Your task to perform on an android device: open app "PlayWell" (install if not already installed) and go to login screen Image 0: 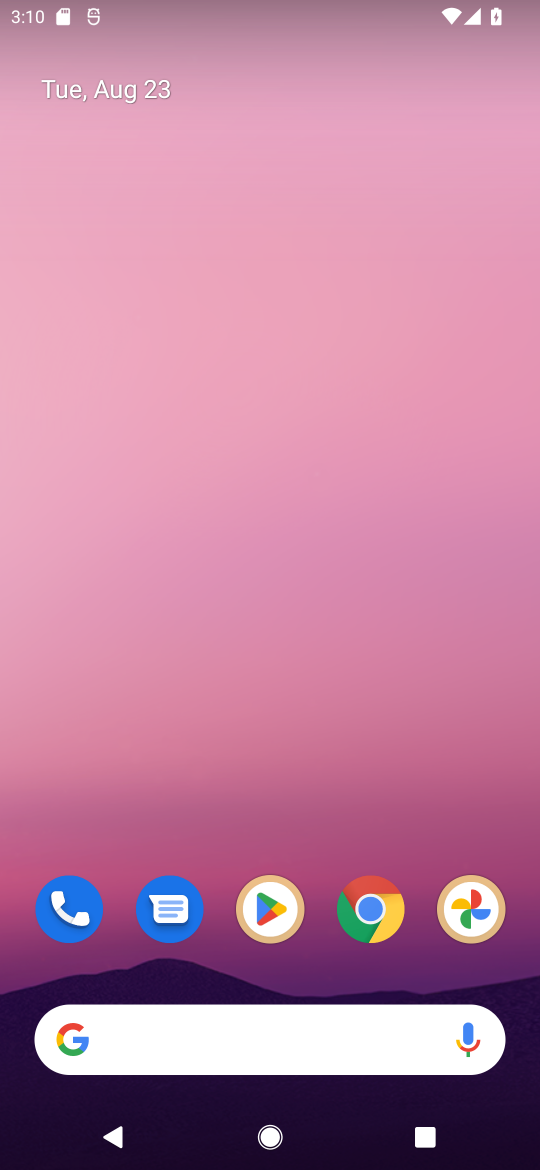
Step 0: press home button
Your task to perform on an android device: open app "PlayWell" (install if not already installed) and go to login screen Image 1: 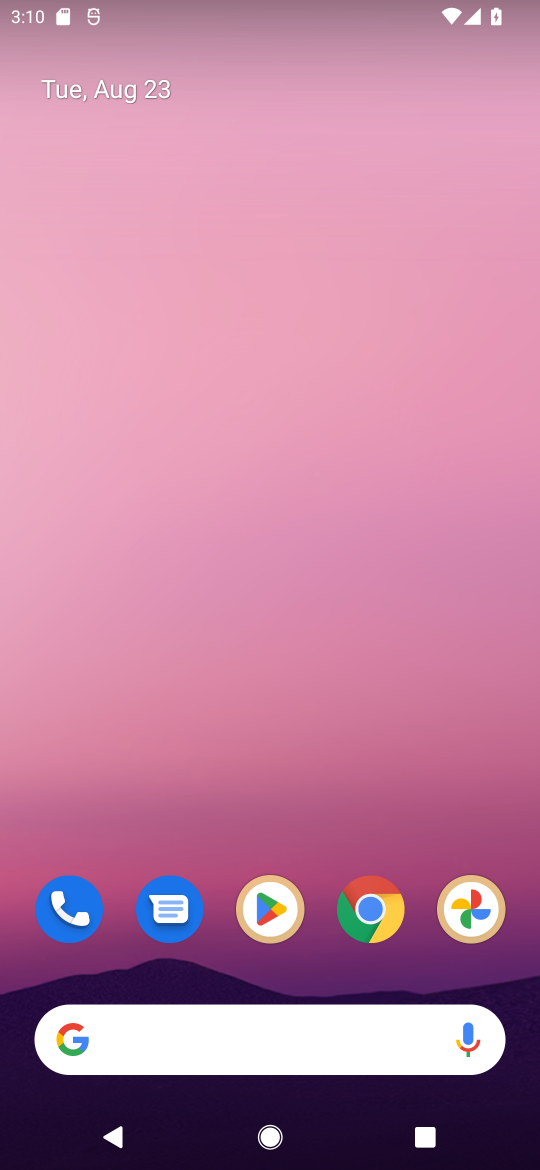
Step 1: click (267, 904)
Your task to perform on an android device: open app "PlayWell" (install if not already installed) and go to login screen Image 2: 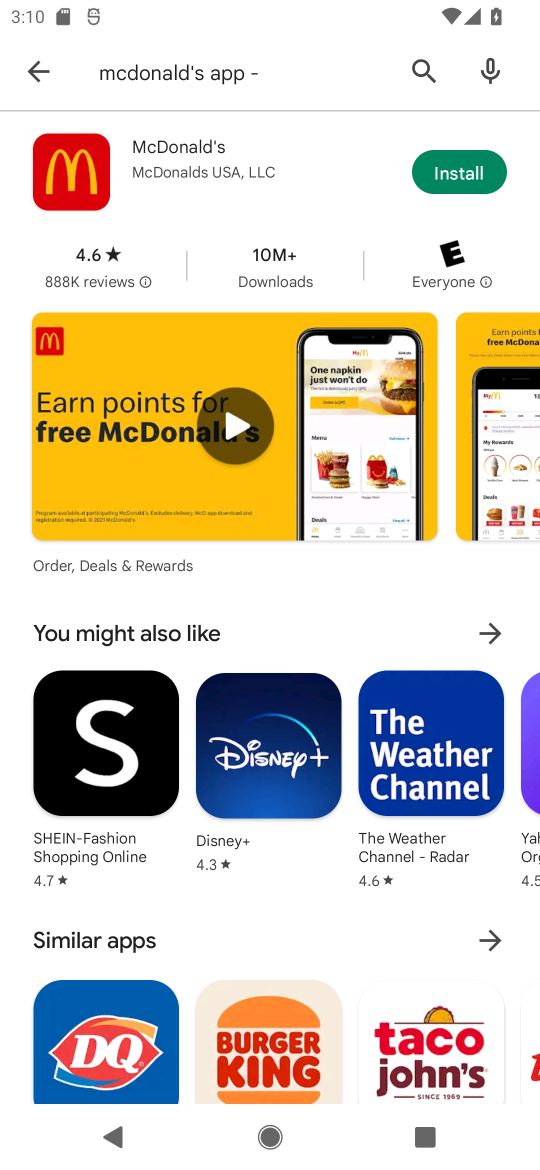
Step 2: click (429, 70)
Your task to perform on an android device: open app "PlayWell" (install if not already installed) and go to login screen Image 3: 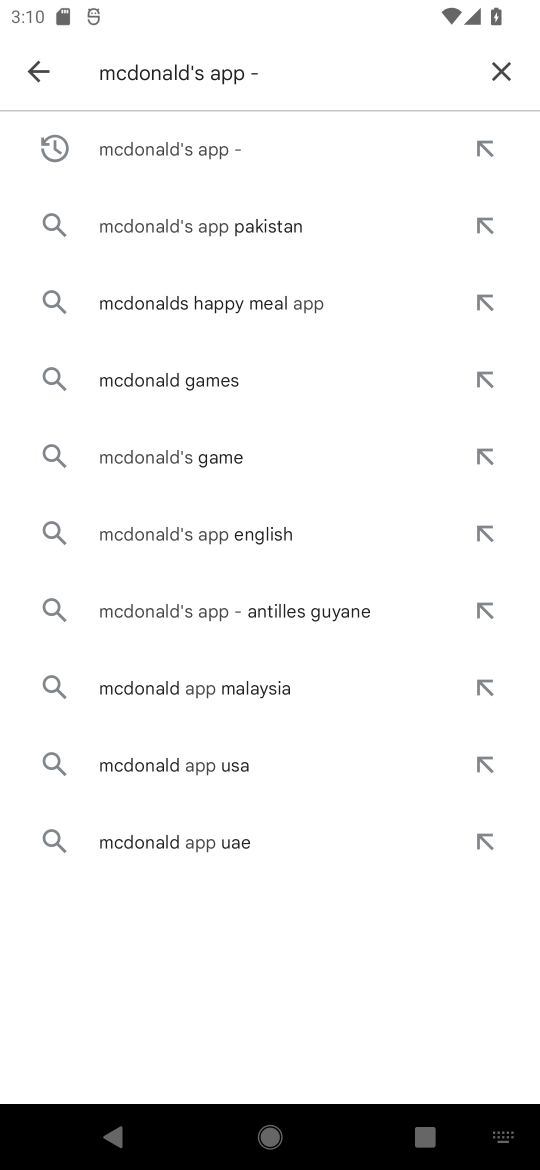
Step 3: click (492, 79)
Your task to perform on an android device: open app "PlayWell" (install if not already installed) and go to login screen Image 4: 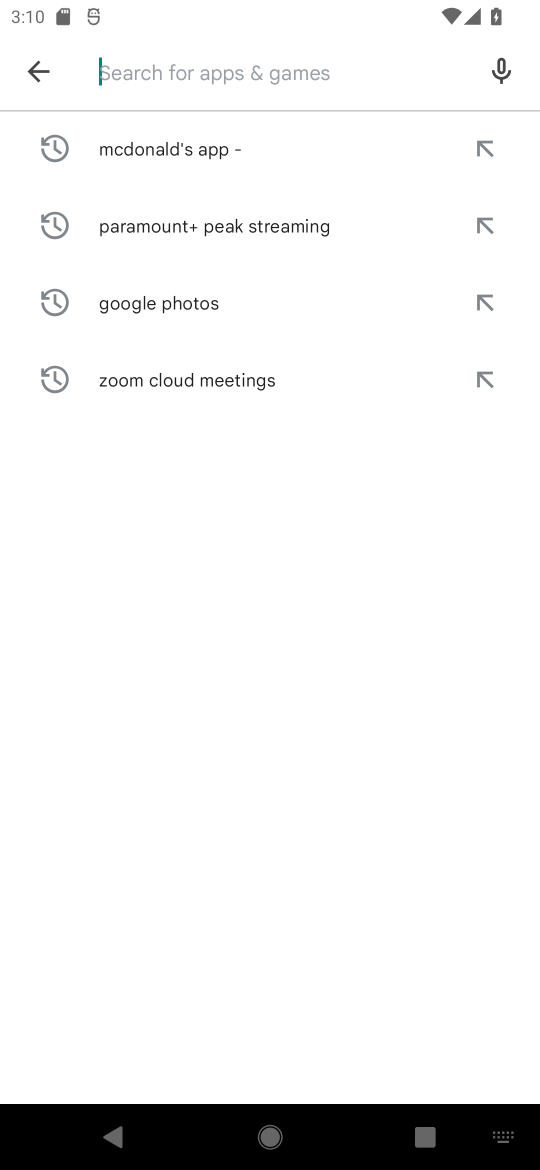
Step 4: type "PlayWell"
Your task to perform on an android device: open app "PlayWell" (install if not already installed) and go to login screen Image 5: 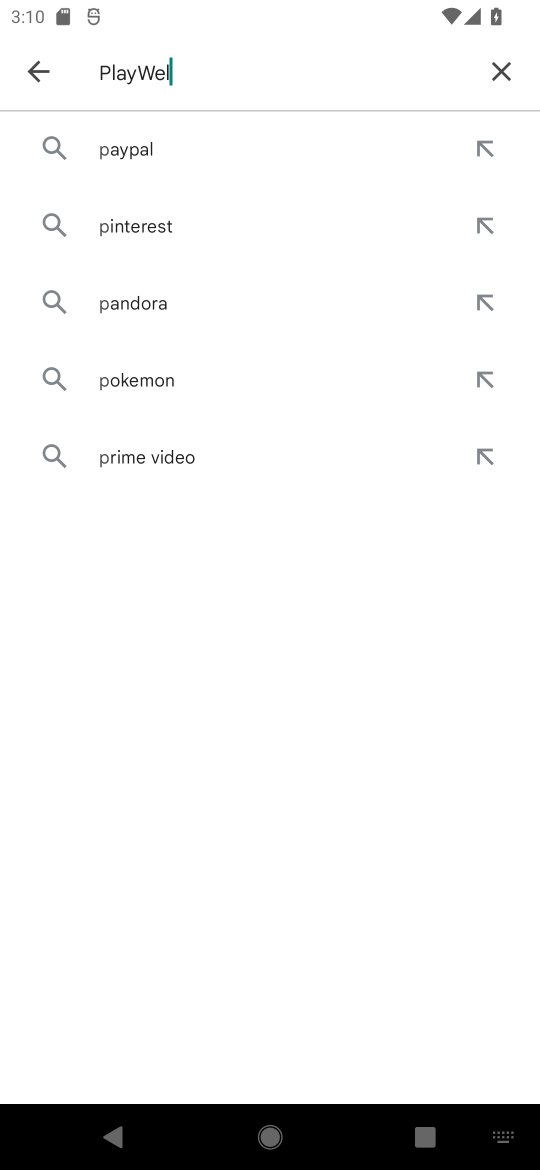
Step 5: type ""
Your task to perform on an android device: open app "PlayWell" (install if not already installed) and go to login screen Image 6: 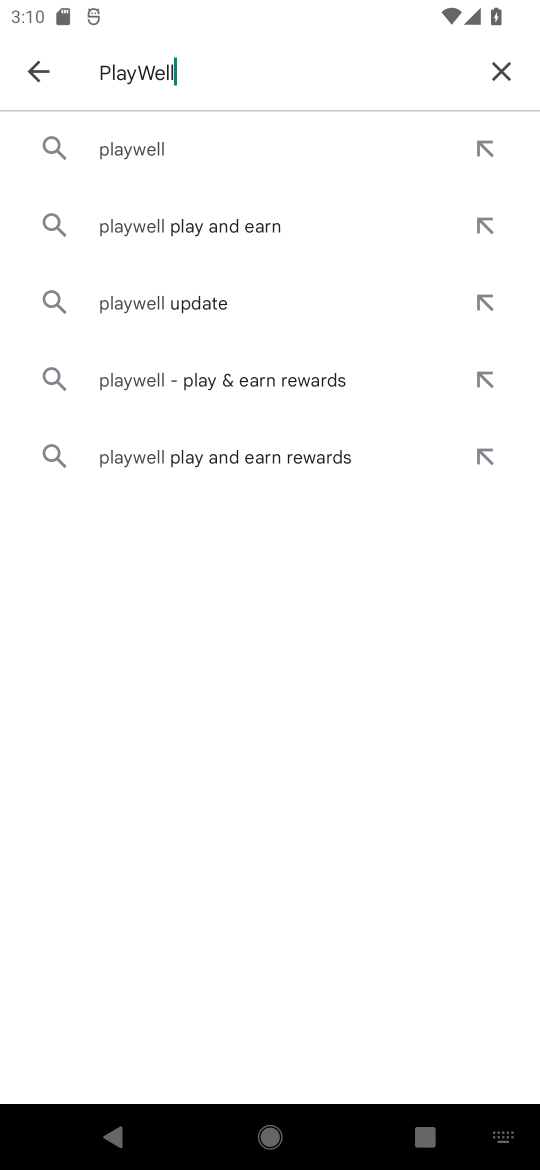
Step 6: click (184, 147)
Your task to perform on an android device: open app "PlayWell" (install if not already installed) and go to login screen Image 7: 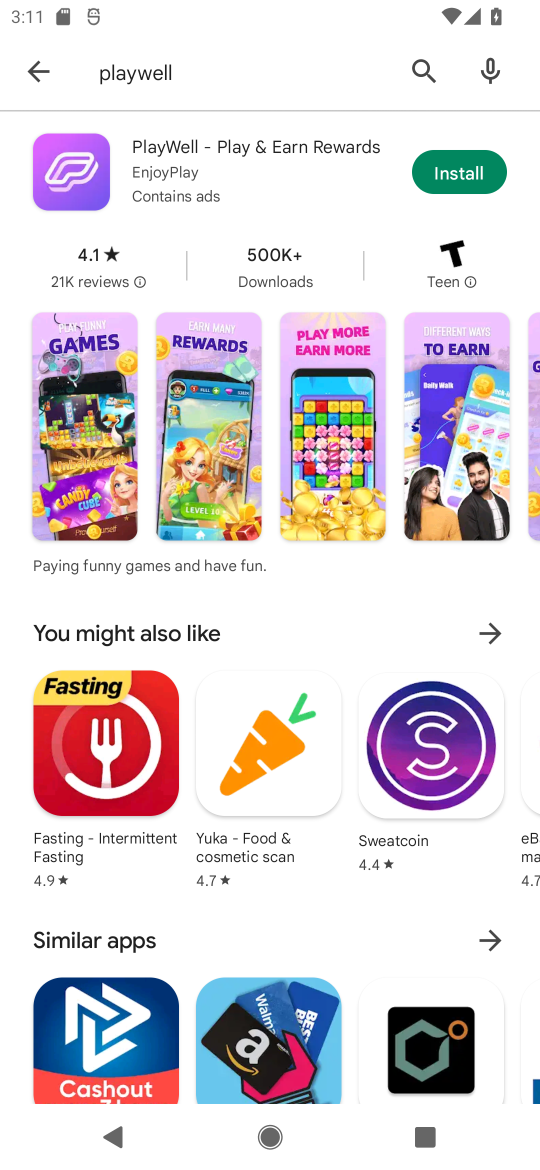
Step 7: click (465, 172)
Your task to perform on an android device: open app "PlayWell" (install if not already installed) and go to login screen Image 8: 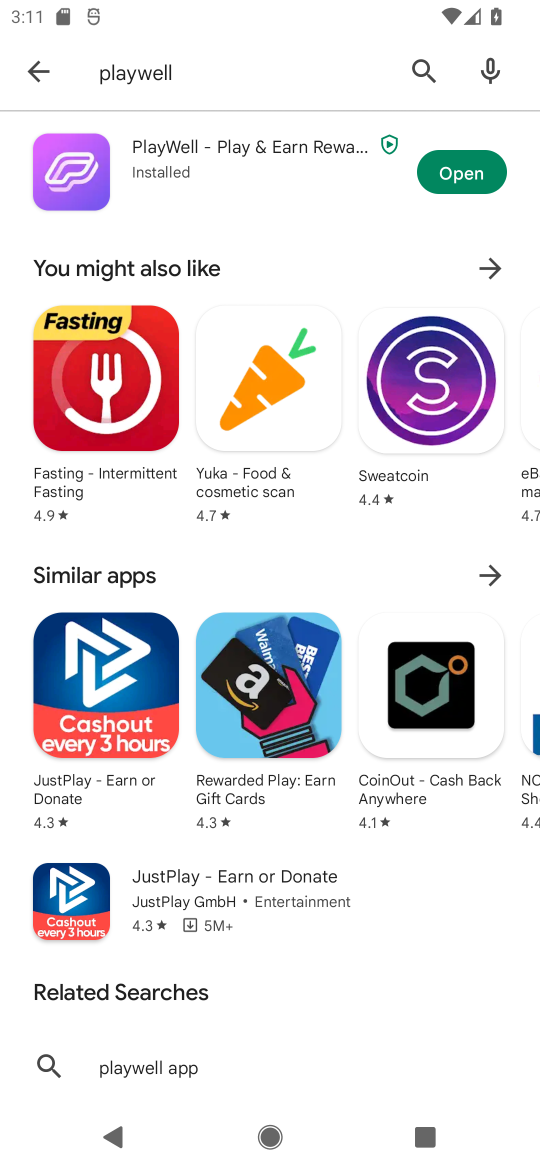
Step 8: click (456, 164)
Your task to perform on an android device: open app "PlayWell" (install if not already installed) and go to login screen Image 9: 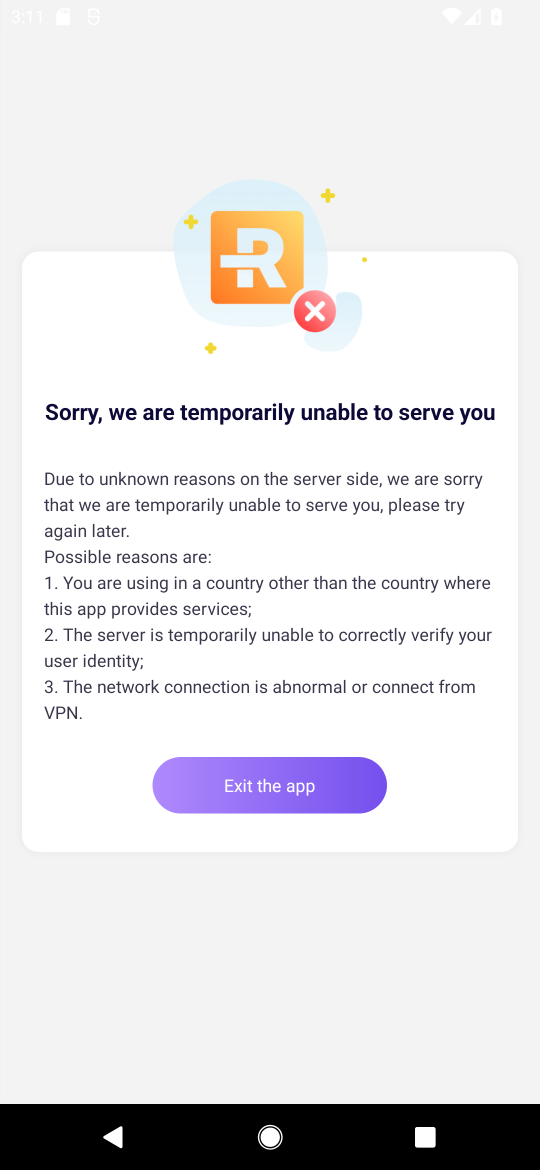
Step 9: click (276, 791)
Your task to perform on an android device: open app "PlayWell" (install if not already installed) and go to login screen Image 10: 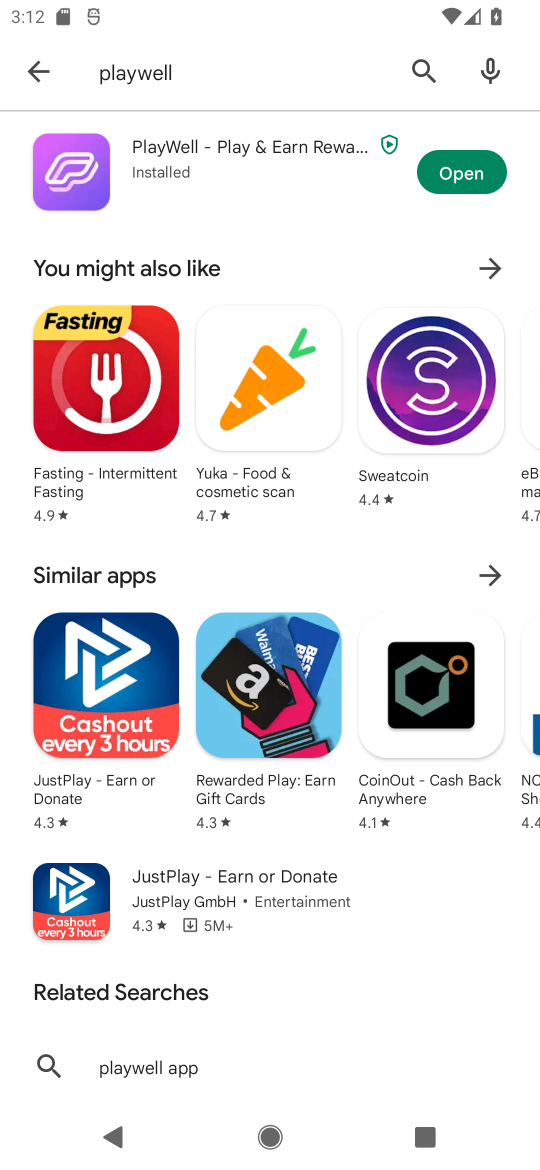
Step 10: click (452, 169)
Your task to perform on an android device: open app "PlayWell" (install if not already installed) and go to login screen Image 11: 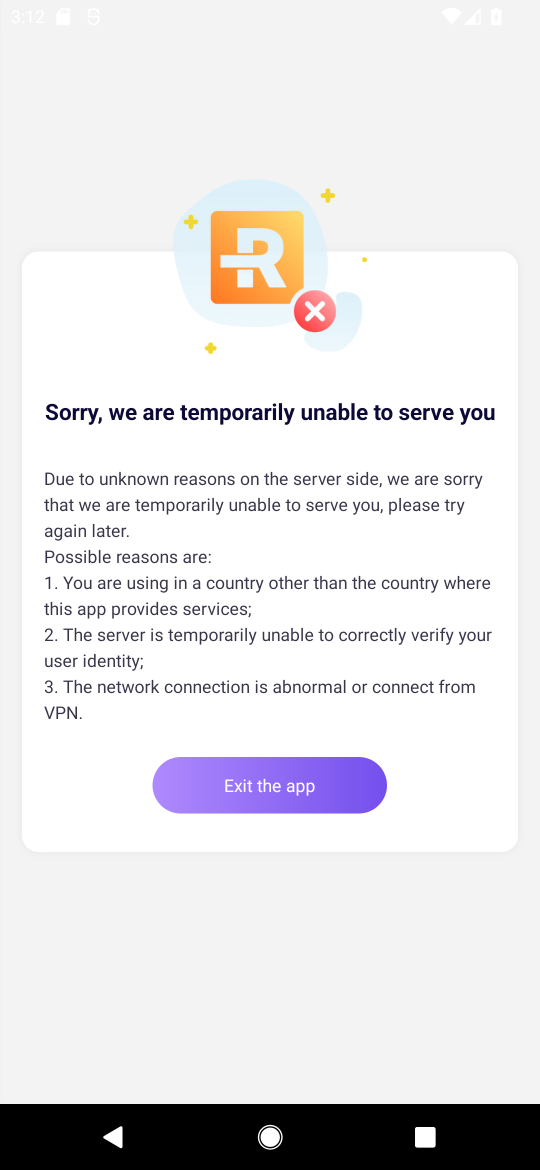
Step 11: task complete